Your task to perform on an android device: Is it going to rain tomorrow? Image 0: 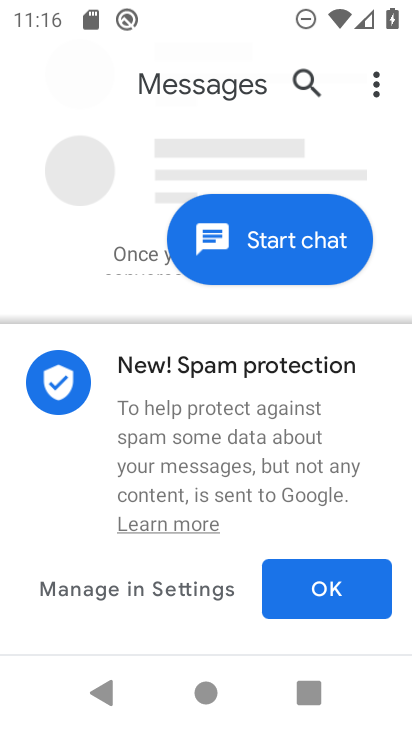
Step 0: press home button
Your task to perform on an android device: Is it going to rain tomorrow? Image 1: 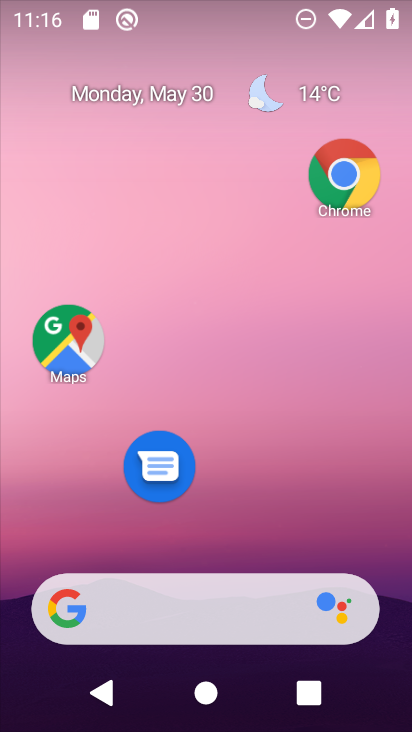
Step 1: click (146, 595)
Your task to perform on an android device: Is it going to rain tomorrow? Image 2: 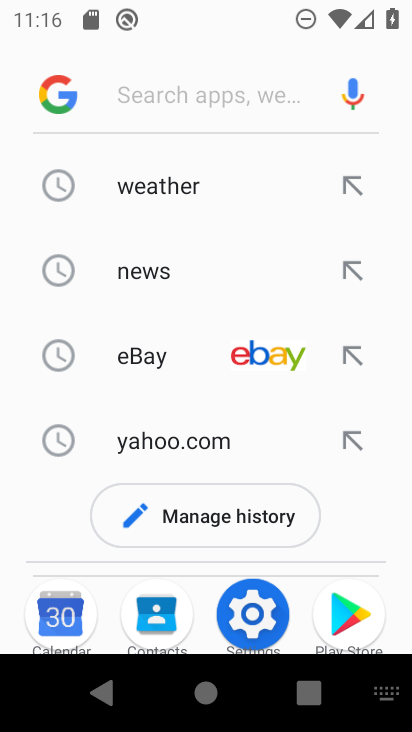
Step 2: click (209, 204)
Your task to perform on an android device: Is it going to rain tomorrow? Image 3: 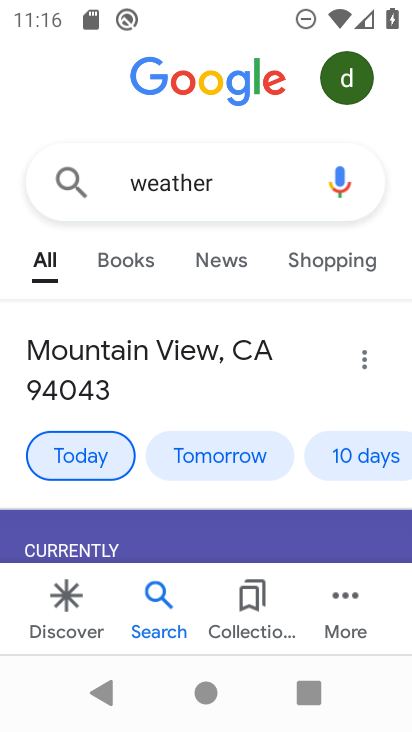
Step 3: click (182, 446)
Your task to perform on an android device: Is it going to rain tomorrow? Image 4: 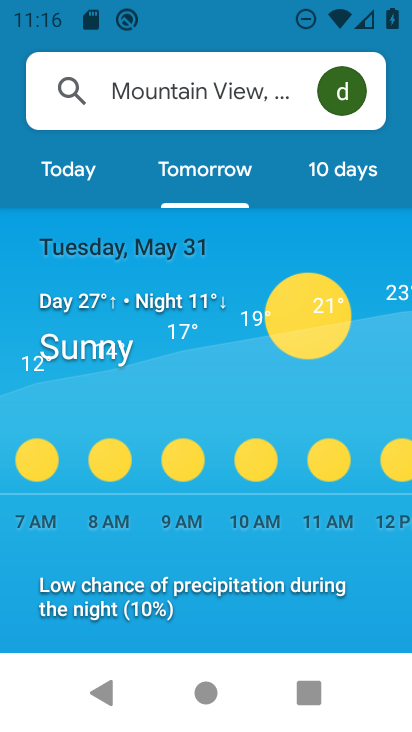
Step 4: drag from (271, 365) to (12, 415)
Your task to perform on an android device: Is it going to rain tomorrow? Image 5: 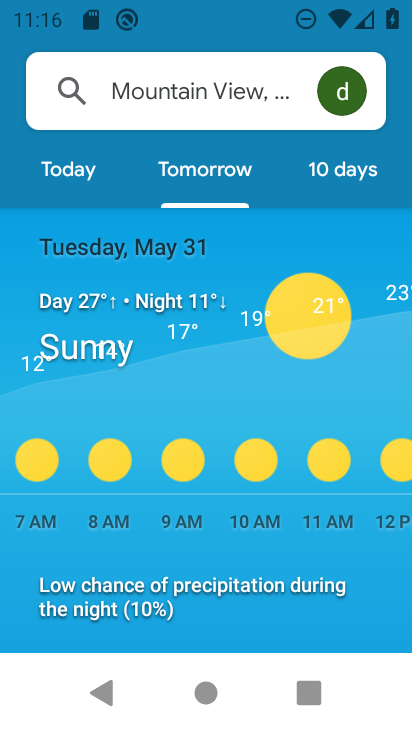
Step 5: click (93, 381)
Your task to perform on an android device: Is it going to rain tomorrow? Image 6: 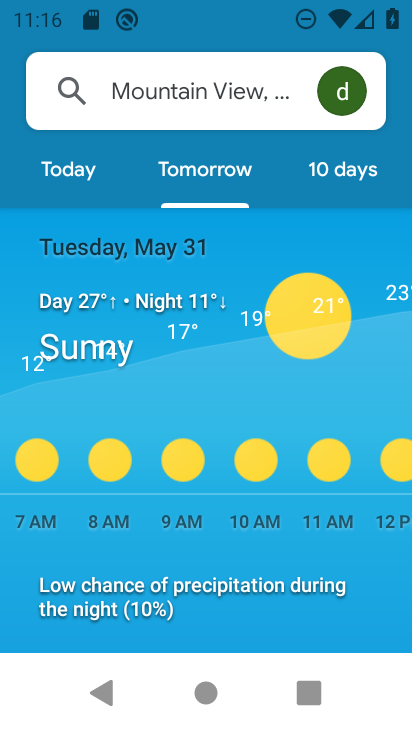
Step 6: click (220, 416)
Your task to perform on an android device: Is it going to rain tomorrow? Image 7: 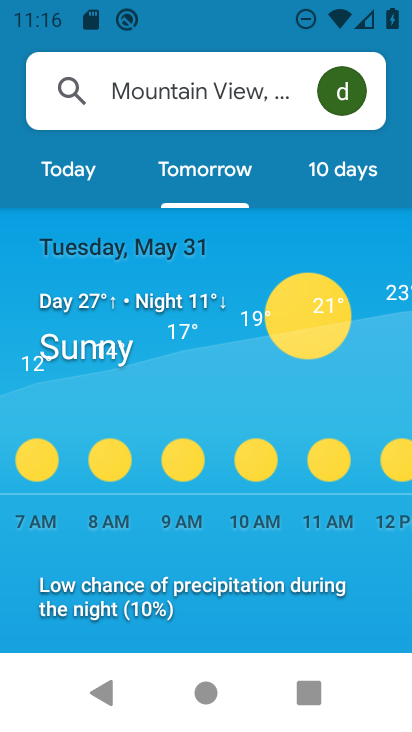
Step 7: task complete